Your task to perform on an android device: Open CNN.com Image 0: 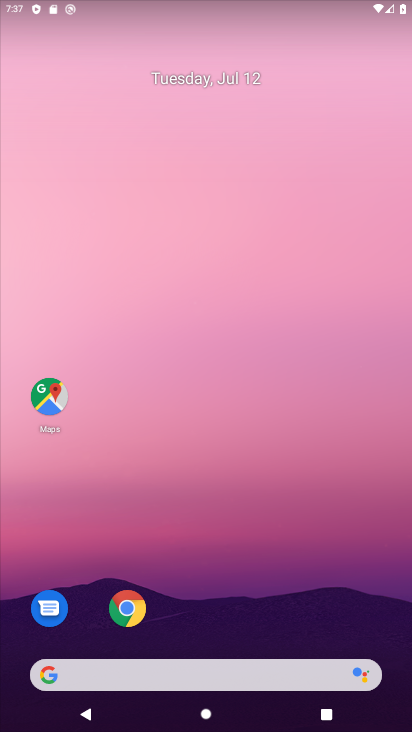
Step 0: click (124, 628)
Your task to perform on an android device: Open CNN.com Image 1: 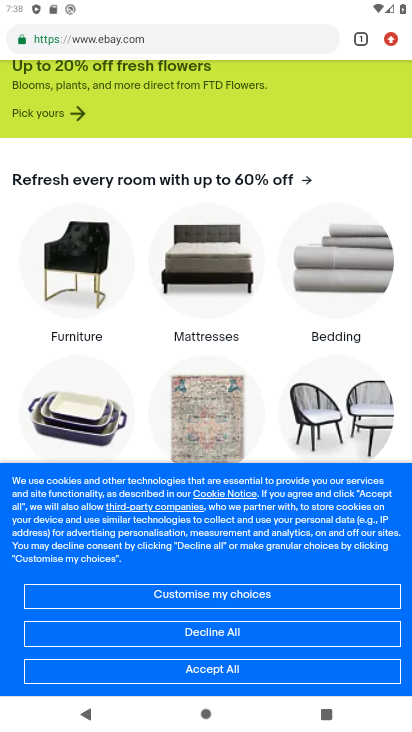
Step 1: click (358, 37)
Your task to perform on an android device: Open CNN.com Image 2: 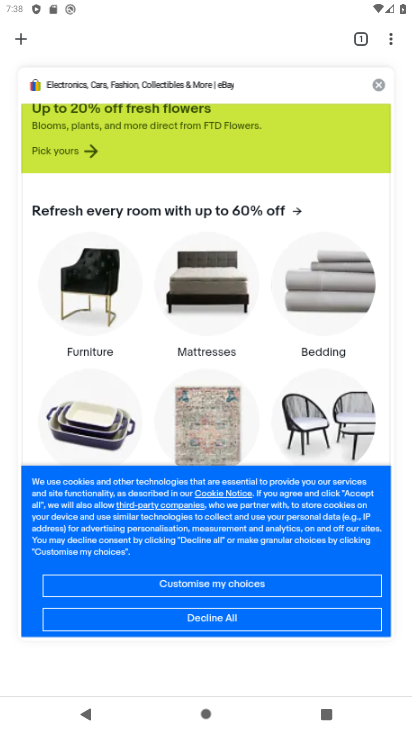
Step 2: click (17, 46)
Your task to perform on an android device: Open CNN.com Image 3: 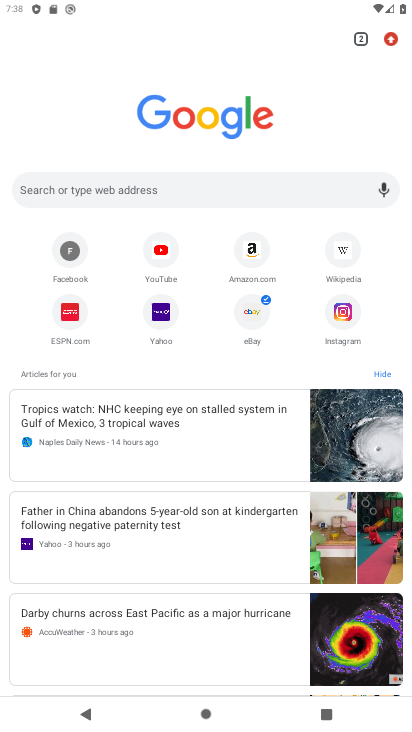
Step 3: click (231, 197)
Your task to perform on an android device: Open CNN.com Image 4: 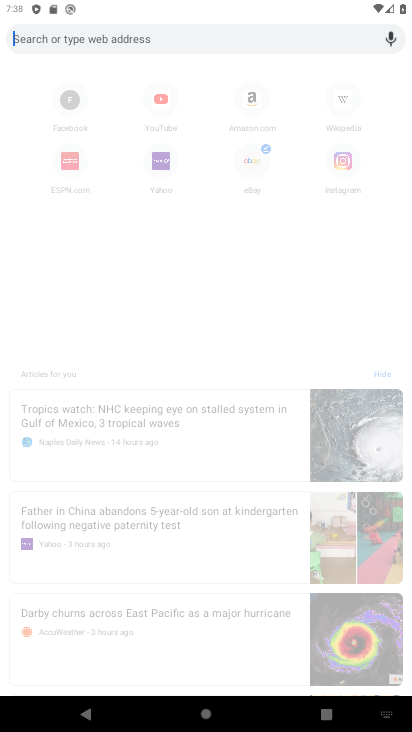
Step 4: type "CNN.com"
Your task to perform on an android device: Open CNN.com Image 5: 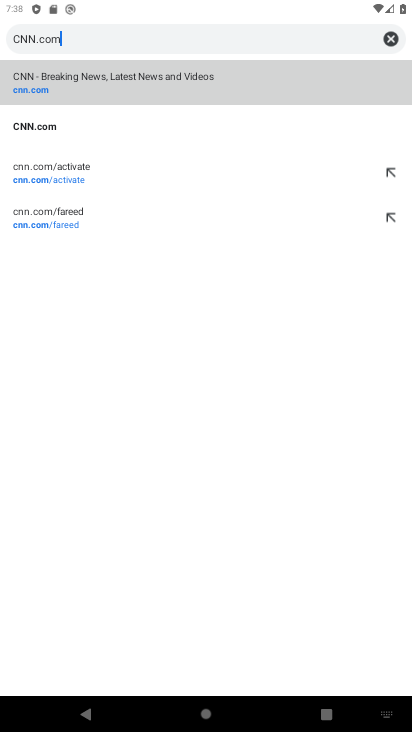
Step 5: type ""
Your task to perform on an android device: Open CNN.com Image 6: 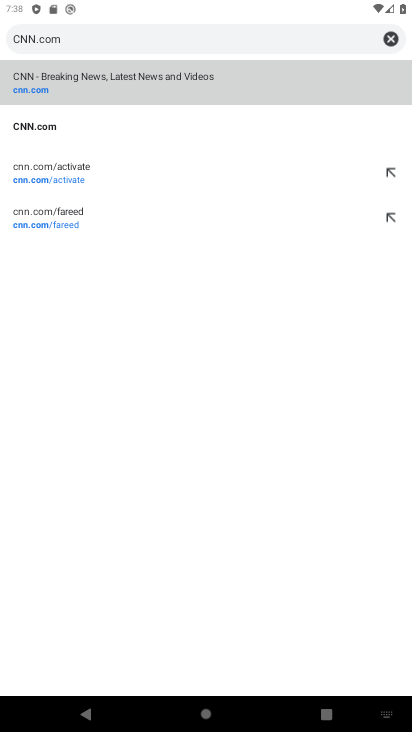
Step 6: click (101, 73)
Your task to perform on an android device: Open CNN.com Image 7: 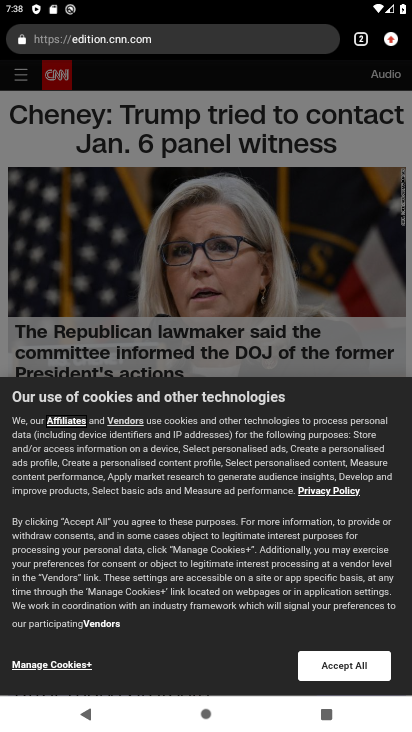
Step 7: task complete